Your task to perform on an android device: turn on priority inbox in the gmail app Image 0: 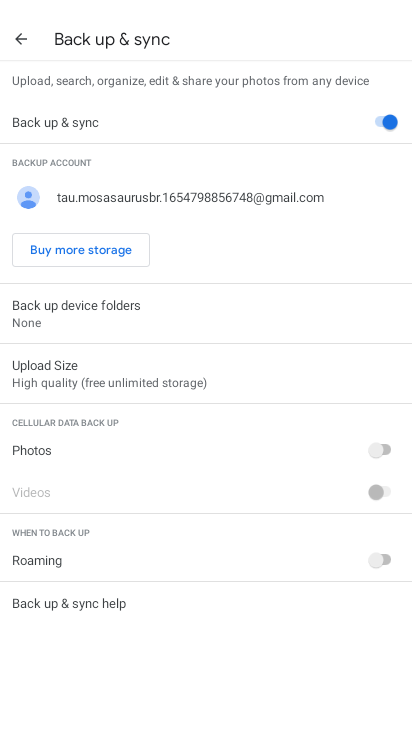
Step 0: press home button
Your task to perform on an android device: turn on priority inbox in the gmail app Image 1: 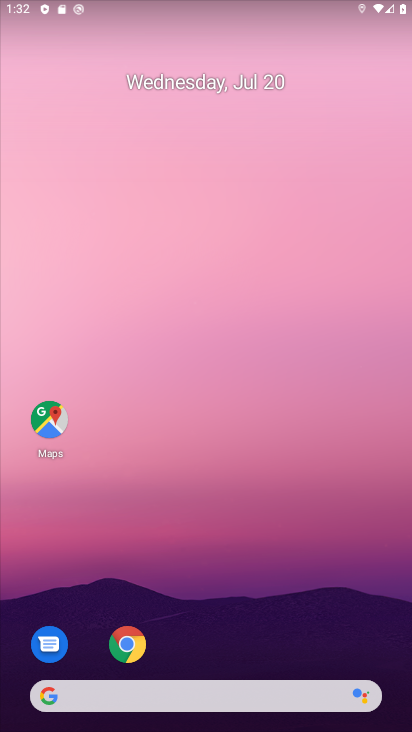
Step 1: drag from (292, 589) to (212, 19)
Your task to perform on an android device: turn on priority inbox in the gmail app Image 2: 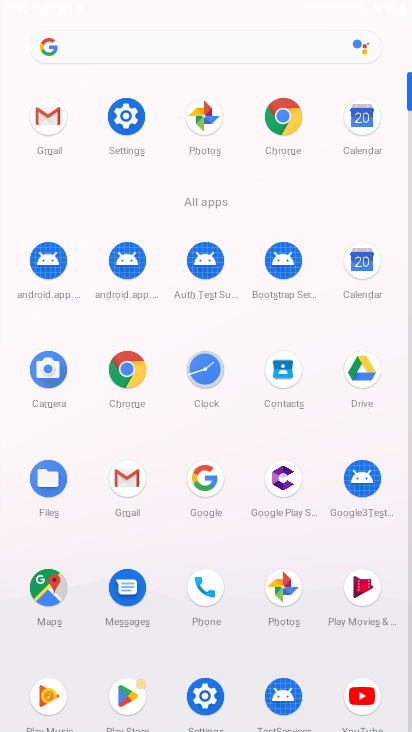
Step 2: click (42, 130)
Your task to perform on an android device: turn on priority inbox in the gmail app Image 3: 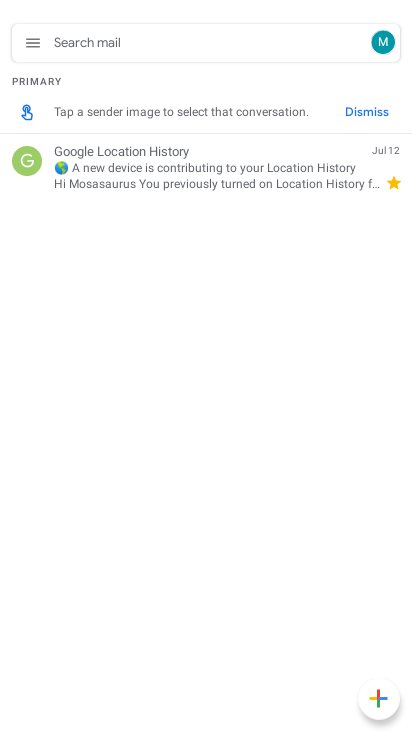
Step 3: click (33, 33)
Your task to perform on an android device: turn on priority inbox in the gmail app Image 4: 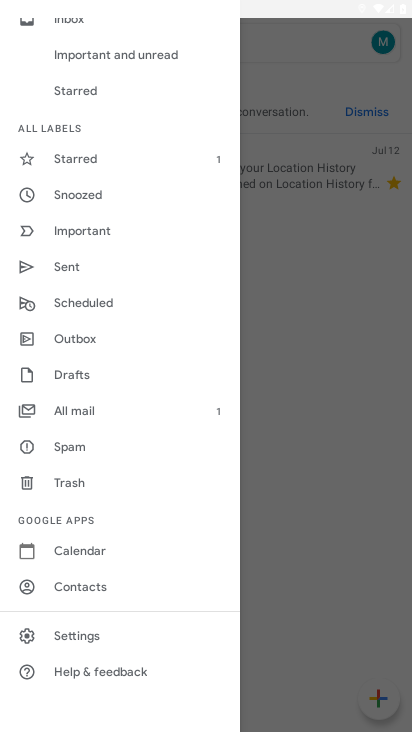
Step 4: click (54, 631)
Your task to perform on an android device: turn on priority inbox in the gmail app Image 5: 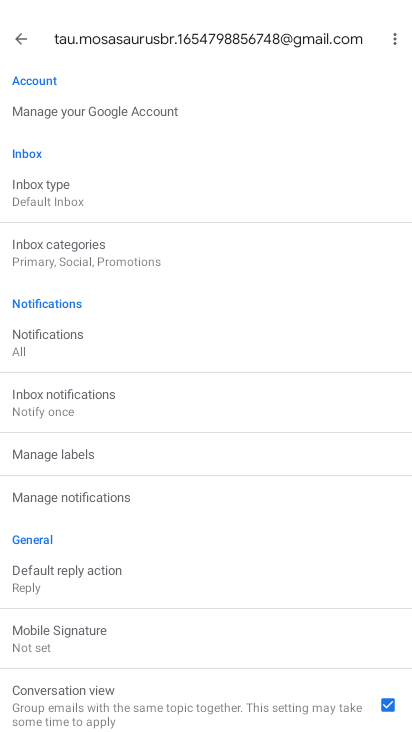
Step 5: click (77, 188)
Your task to perform on an android device: turn on priority inbox in the gmail app Image 6: 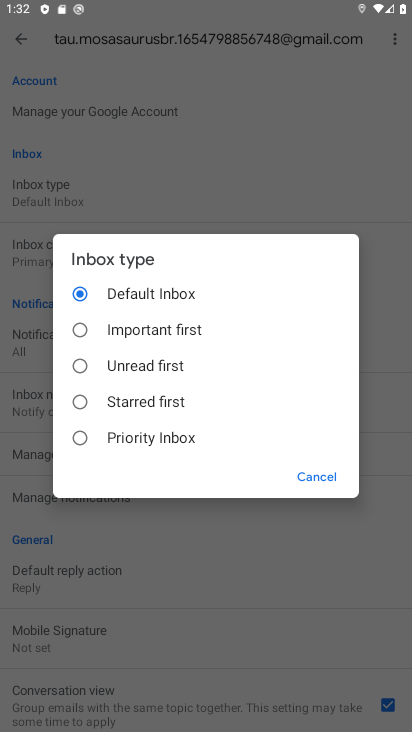
Step 6: click (93, 449)
Your task to perform on an android device: turn on priority inbox in the gmail app Image 7: 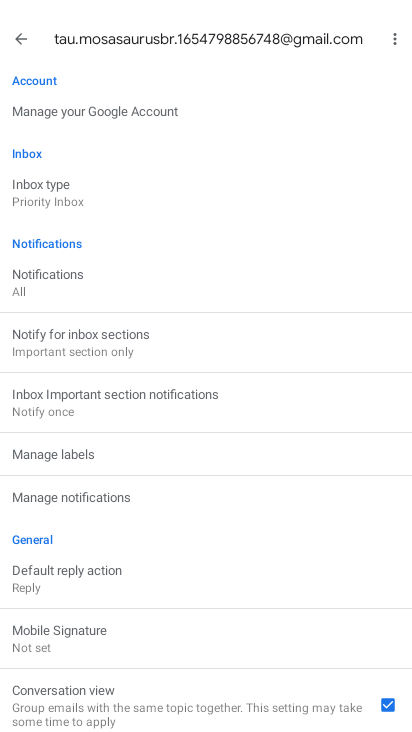
Step 7: task complete